Your task to perform on an android device: open app "Grab" (install if not already installed) and go to login screen Image 0: 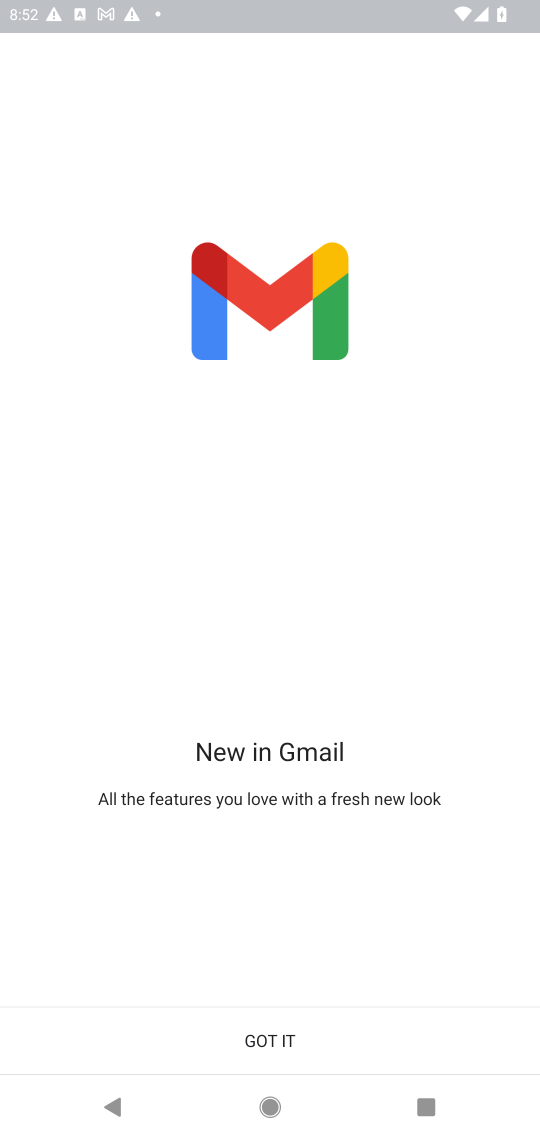
Step 0: press home button
Your task to perform on an android device: open app "Grab" (install if not already installed) and go to login screen Image 1: 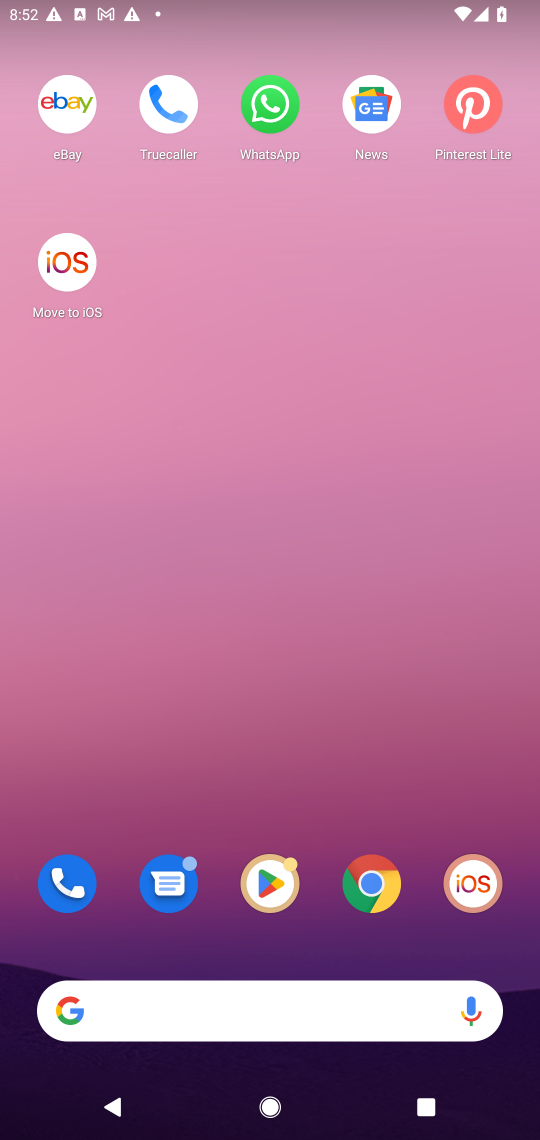
Step 1: click (251, 895)
Your task to perform on an android device: open app "Grab" (install if not already installed) and go to login screen Image 2: 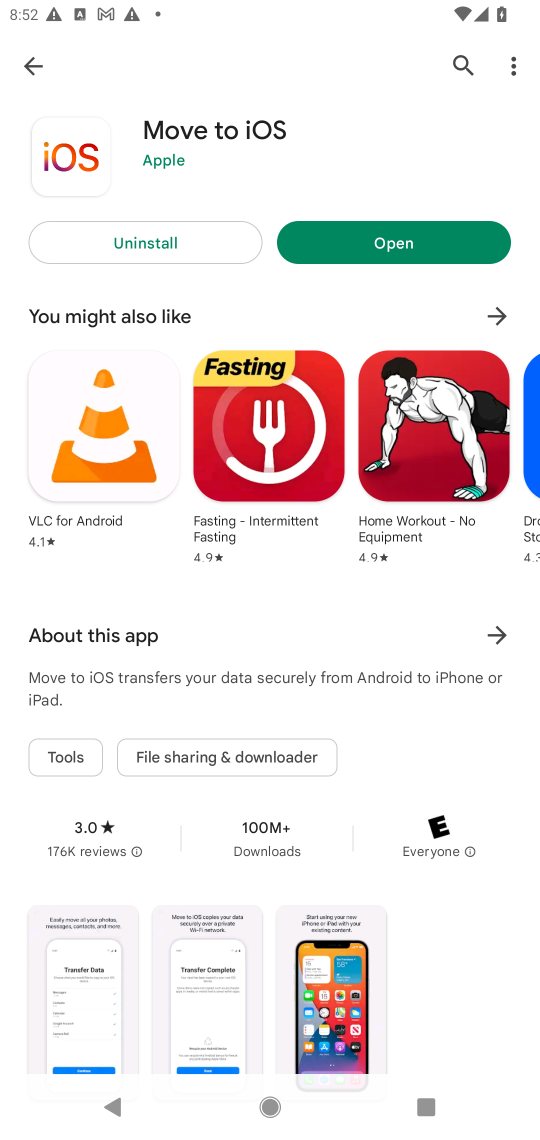
Step 2: click (468, 55)
Your task to perform on an android device: open app "Grab" (install if not already installed) and go to login screen Image 3: 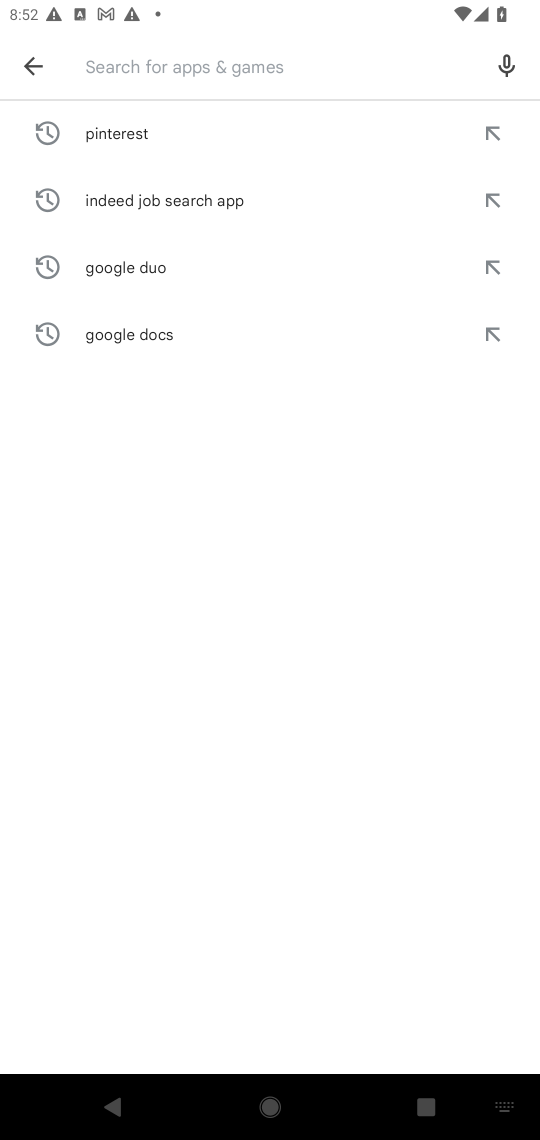
Step 3: type "Grab"
Your task to perform on an android device: open app "Grab" (install if not already installed) and go to login screen Image 4: 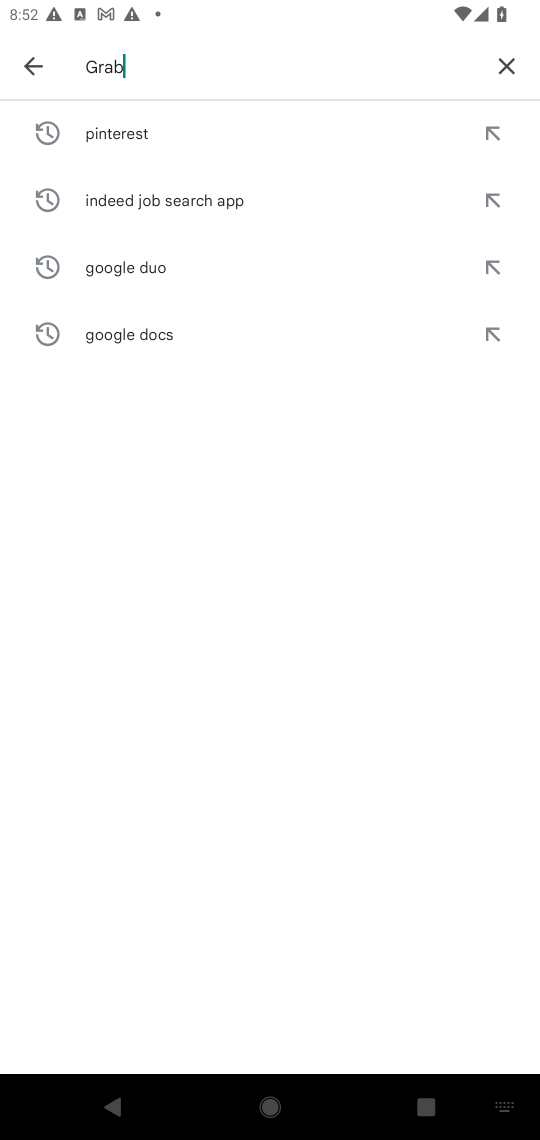
Step 4: type ""
Your task to perform on an android device: open app "Grab" (install if not already installed) and go to login screen Image 5: 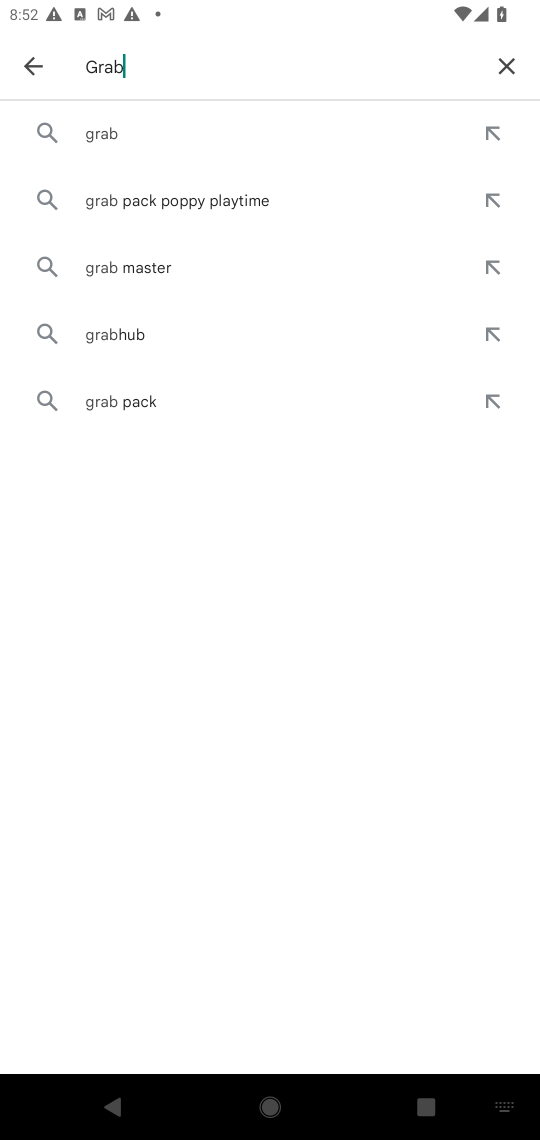
Step 5: click (171, 138)
Your task to perform on an android device: open app "Grab" (install if not already installed) and go to login screen Image 6: 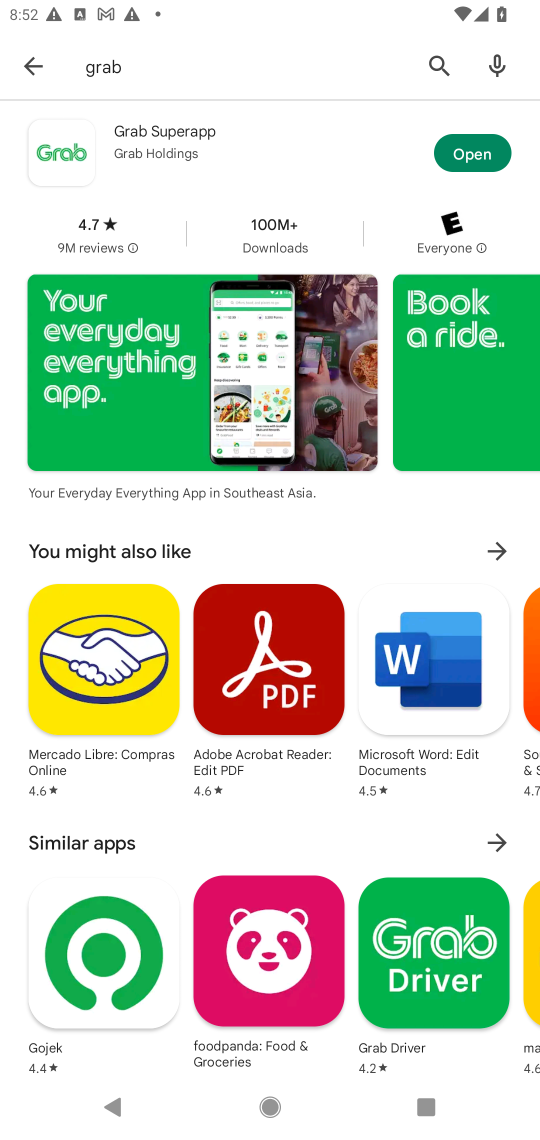
Step 6: click (465, 157)
Your task to perform on an android device: open app "Grab" (install if not already installed) and go to login screen Image 7: 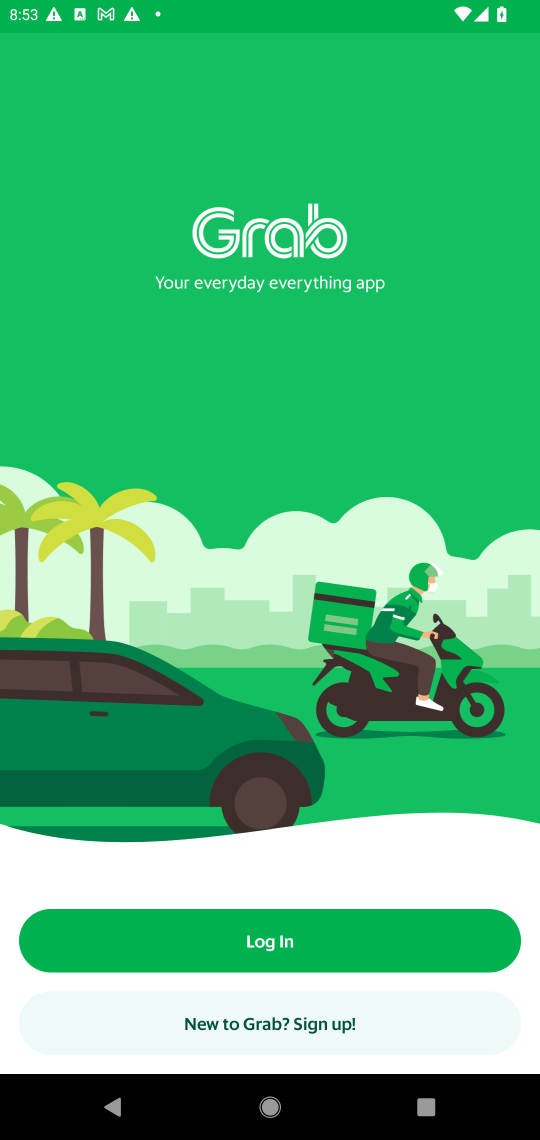
Step 7: task complete